Your task to perform on an android device: delete the emails in spam in the gmail app Image 0: 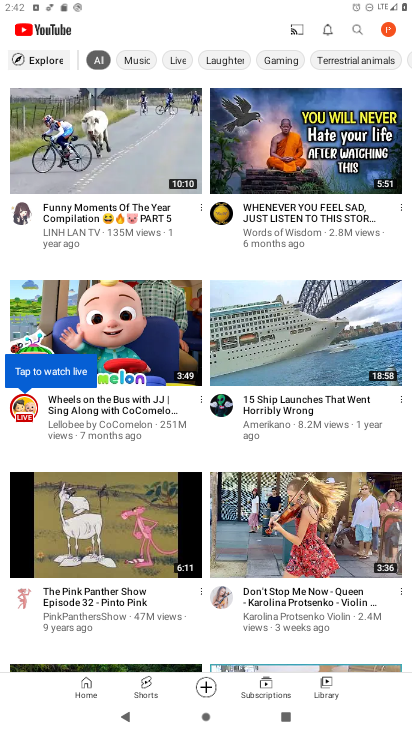
Step 0: press home button
Your task to perform on an android device: delete the emails in spam in the gmail app Image 1: 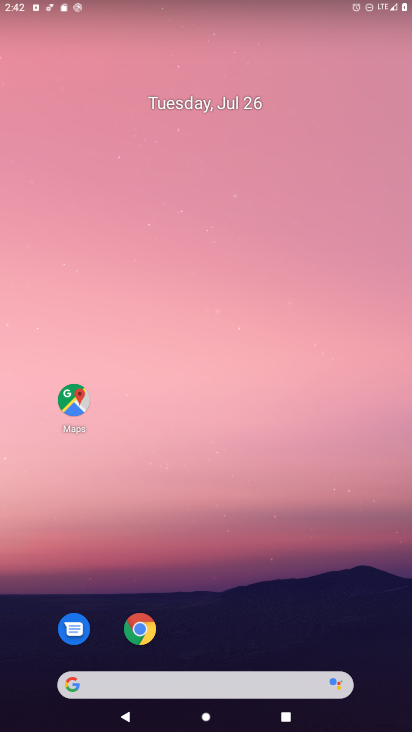
Step 1: drag from (394, 672) to (337, 160)
Your task to perform on an android device: delete the emails in spam in the gmail app Image 2: 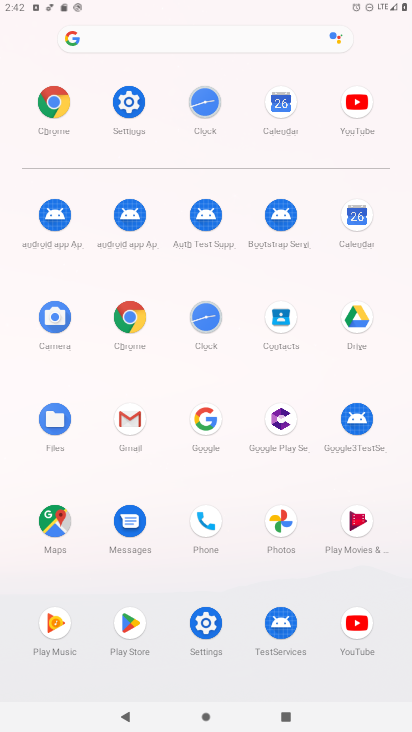
Step 2: click (132, 418)
Your task to perform on an android device: delete the emails in spam in the gmail app Image 3: 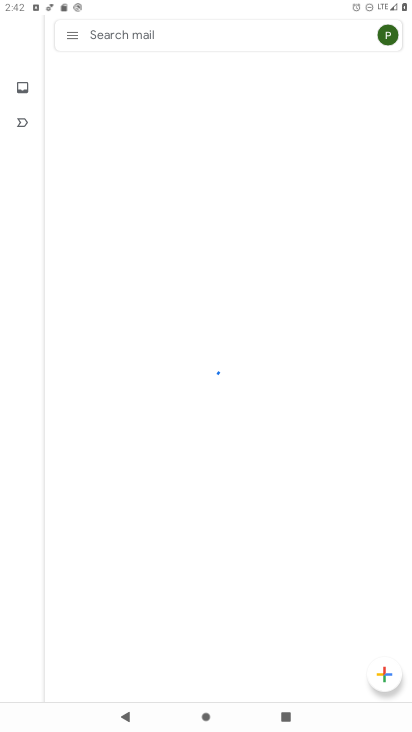
Step 3: click (69, 35)
Your task to perform on an android device: delete the emails in spam in the gmail app Image 4: 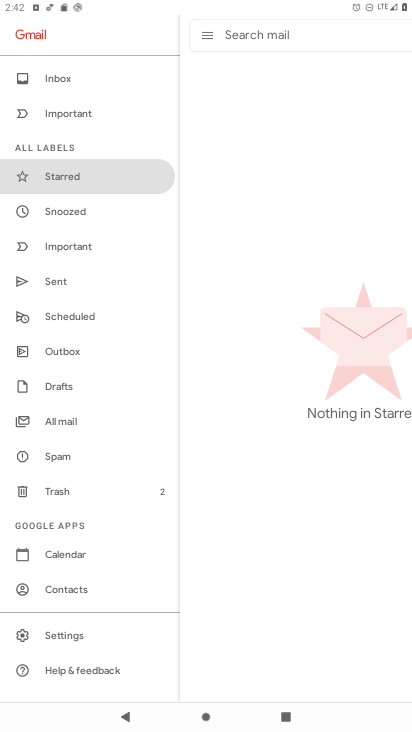
Step 4: click (59, 453)
Your task to perform on an android device: delete the emails in spam in the gmail app Image 5: 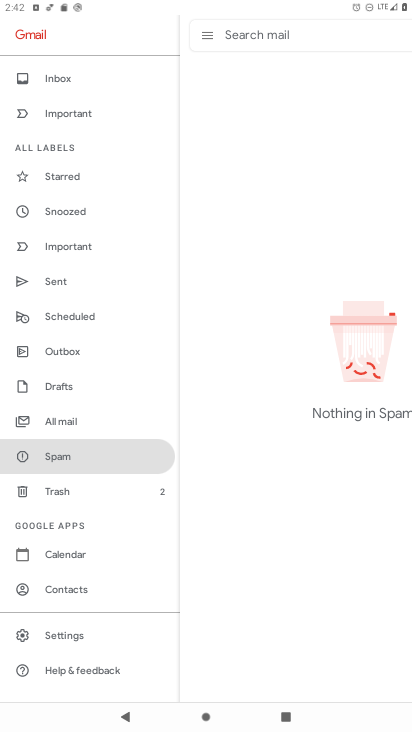
Step 5: task complete